Your task to perform on an android device: set default search engine in the chrome app Image 0: 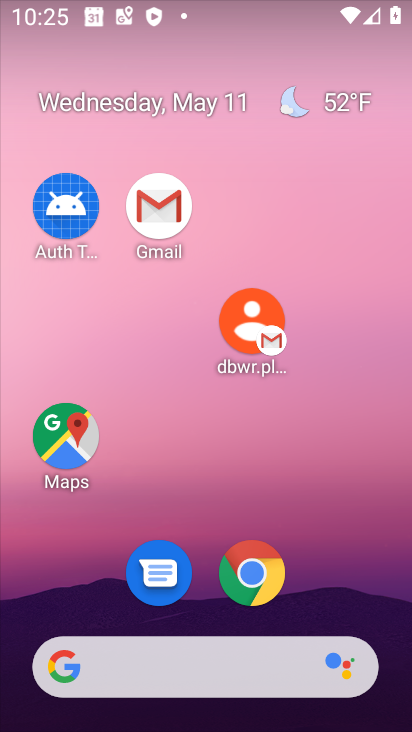
Step 0: drag from (345, 567) to (209, 39)
Your task to perform on an android device: set default search engine in the chrome app Image 1: 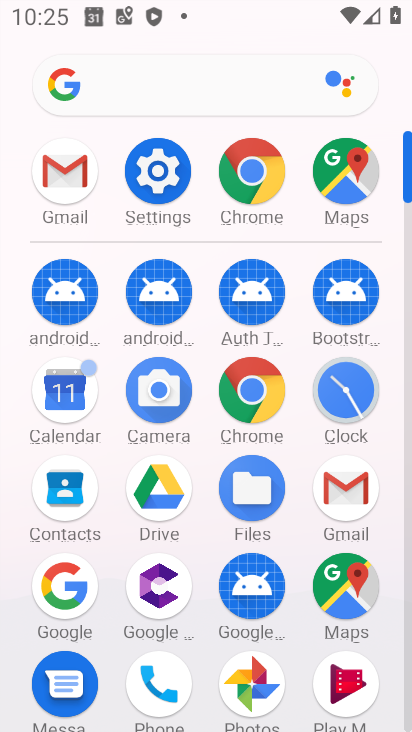
Step 1: click (244, 164)
Your task to perform on an android device: set default search engine in the chrome app Image 2: 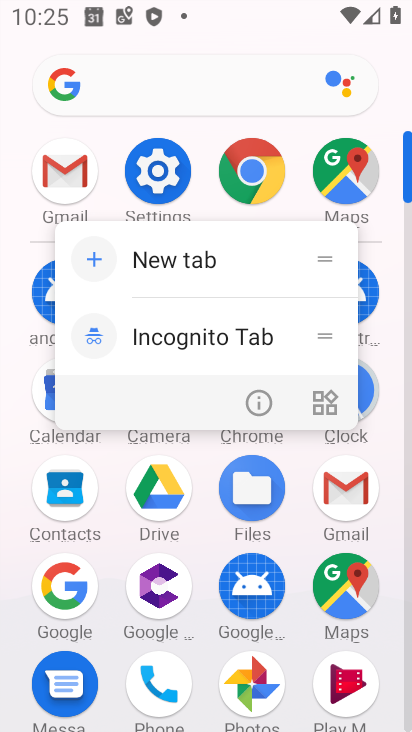
Step 2: click (248, 166)
Your task to perform on an android device: set default search engine in the chrome app Image 3: 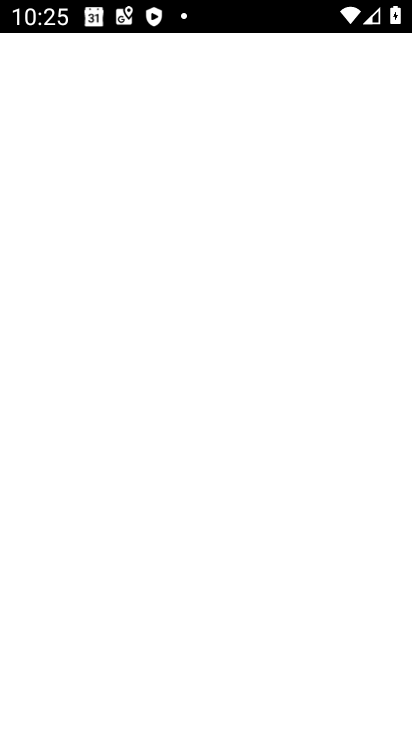
Step 3: click (247, 167)
Your task to perform on an android device: set default search engine in the chrome app Image 4: 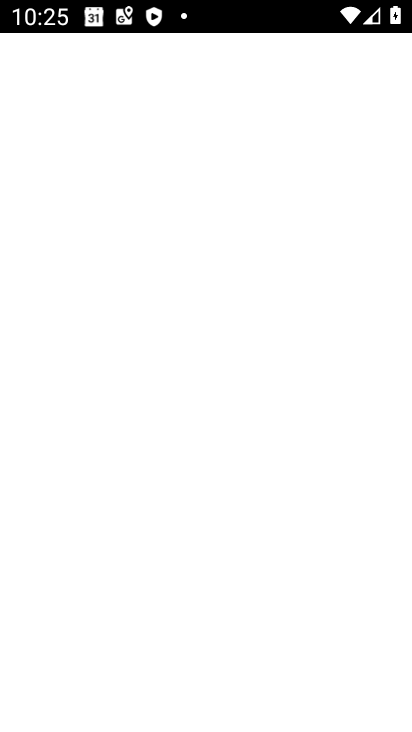
Step 4: click (247, 167)
Your task to perform on an android device: set default search engine in the chrome app Image 5: 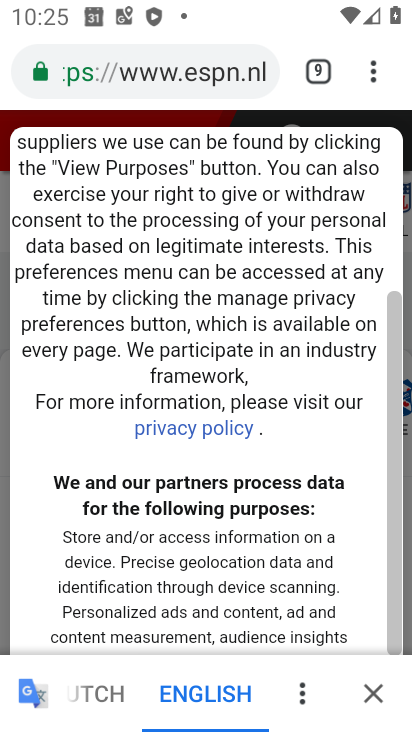
Step 5: drag from (365, 74) to (131, 566)
Your task to perform on an android device: set default search engine in the chrome app Image 6: 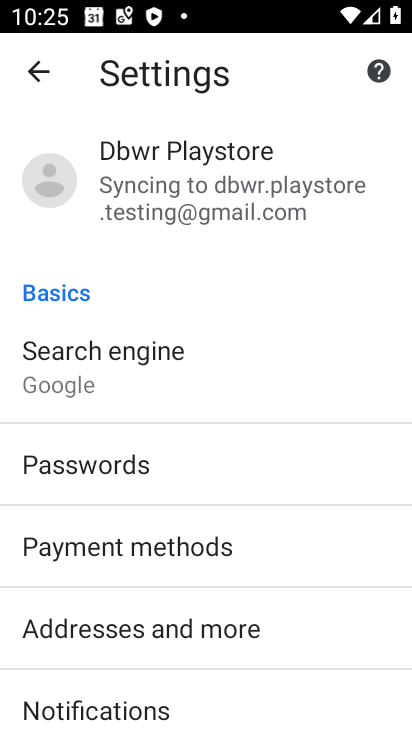
Step 6: drag from (186, 484) to (171, 105)
Your task to perform on an android device: set default search engine in the chrome app Image 7: 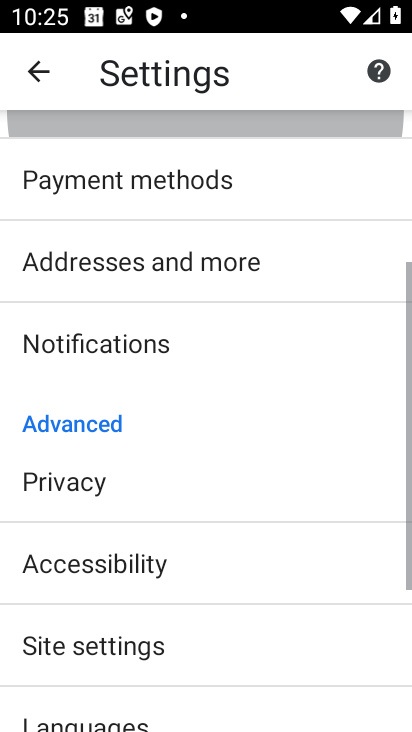
Step 7: drag from (166, 316) to (124, 92)
Your task to perform on an android device: set default search engine in the chrome app Image 8: 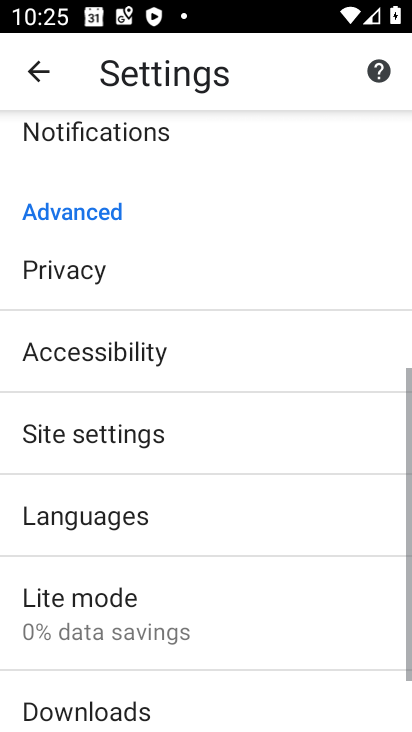
Step 8: drag from (154, 404) to (153, 61)
Your task to perform on an android device: set default search engine in the chrome app Image 9: 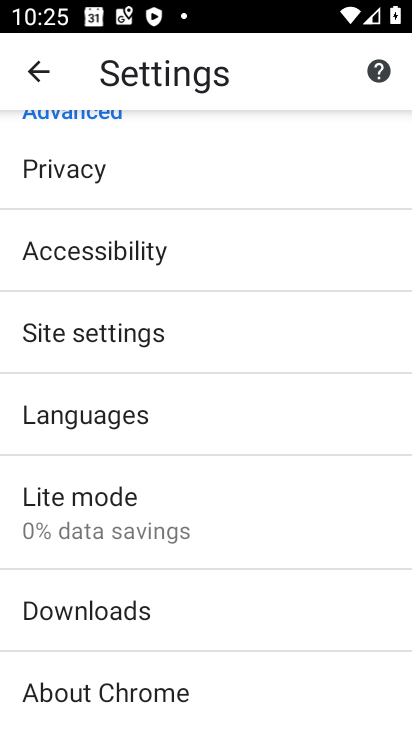
Step 9: click (75, 337)
Your task to perform on an android device: set default search engine in the chrome app Image 10: 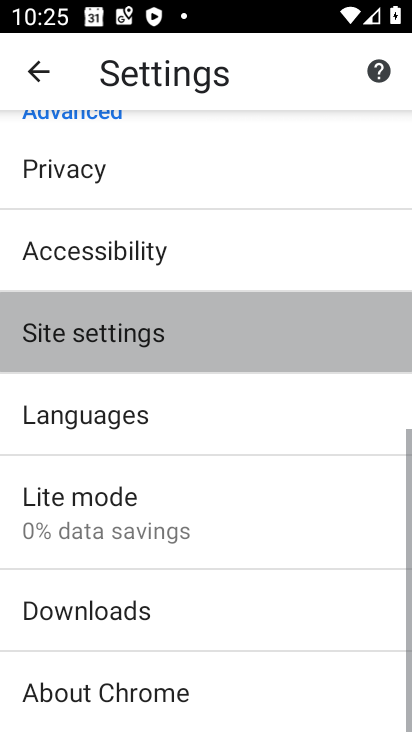
Step 10: click (71, 322)
Your task to perform on an android device: set default search engine in the chrome app Image 11: 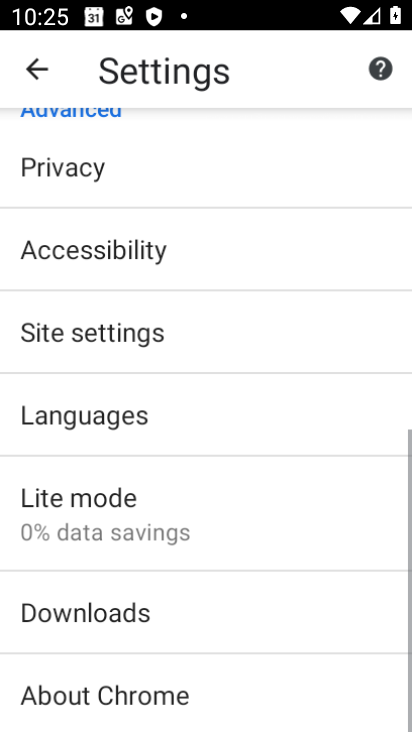
Step 11: click (69, 320)
Your task to perform on an android device: set default search engine in the chrome app Image 12: 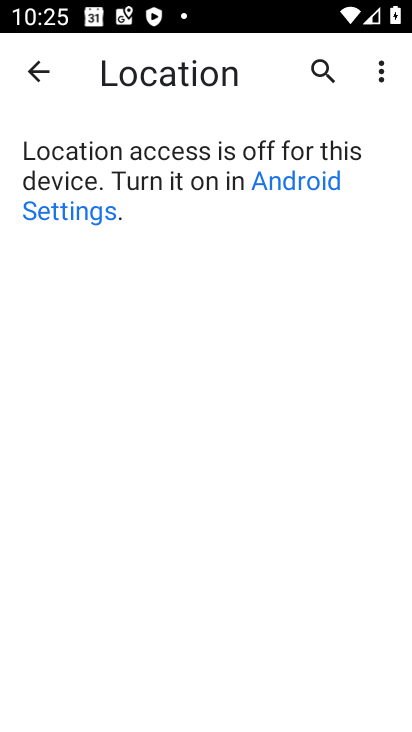
Step 12: click (38, 68)
Your task to perform on an android device: set default search engine in the chrome app Image 13: 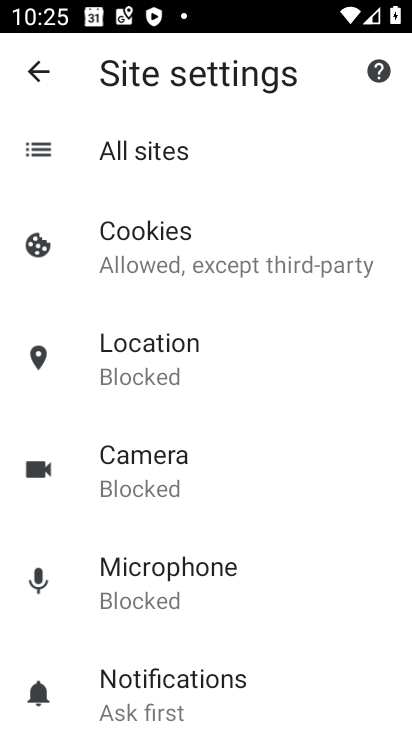
Step 13: click (23, 65)
Your task to perform on an android device: set default search engine in the chrome app Image 14: 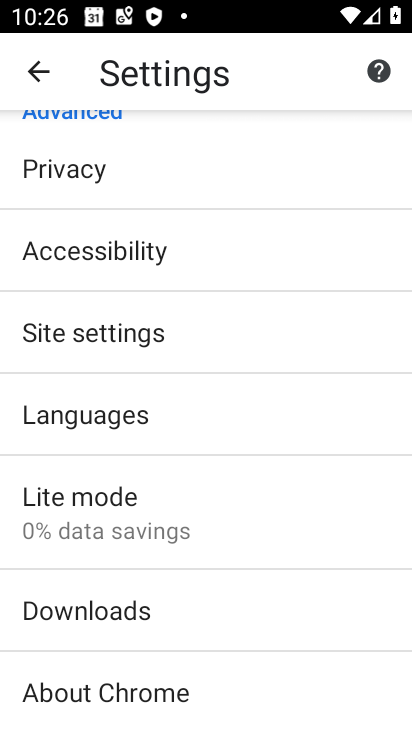
Step 14: drag from (91, 235) to (157, 519)
Your task to perform on an android device: set default search engine in the chrome app Image 15: 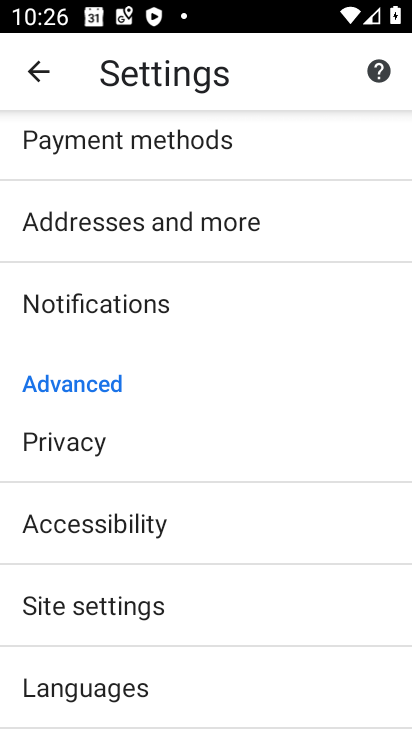
Step 15: drag from (102, 235) to (151, 590)
Your task to perform on an android device: set default search engine in the chrome app Image 16: 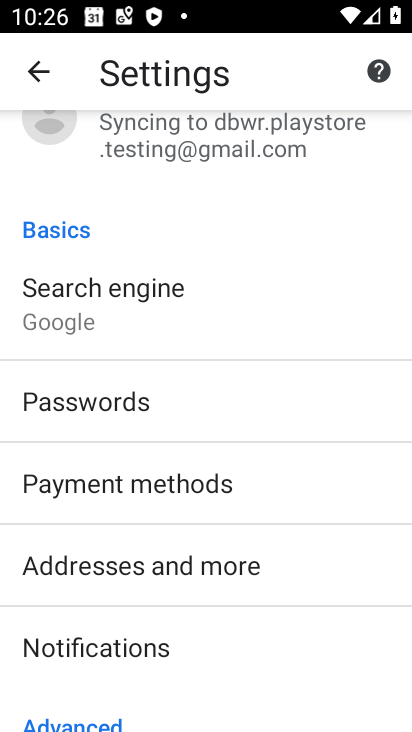
Step 16: click (85, 294)
Your task to perform on an android device: set default search engine in the chrome app Image 17: 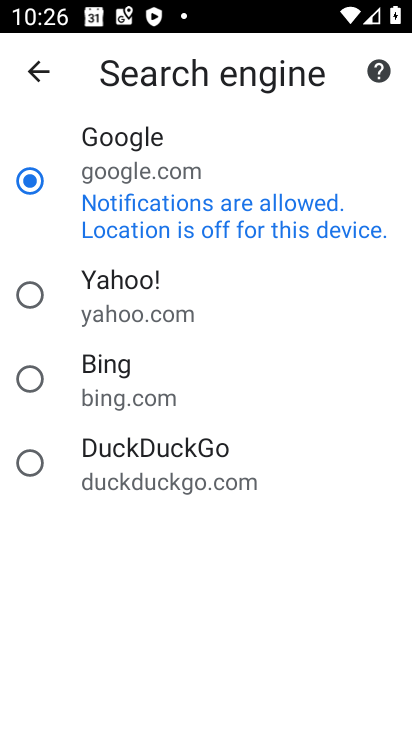
Step 17: click (17, 292)
Your task to perform on an android device: set default search engine in the chrome app Image 18: 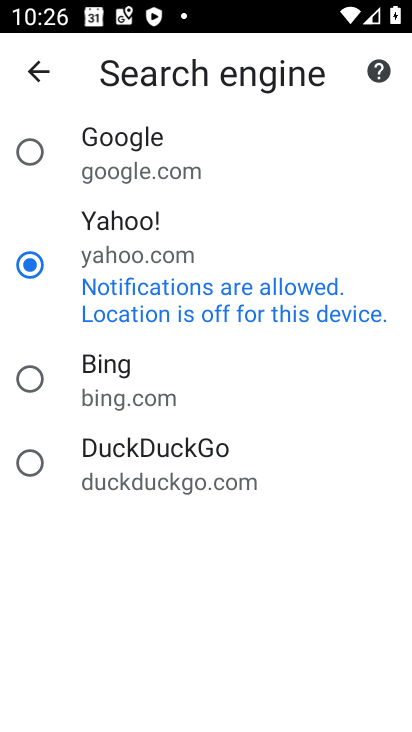
Step 18: click (26, 143)
Your task to perform on an android device: set default search engine in the chrome app Image 19: 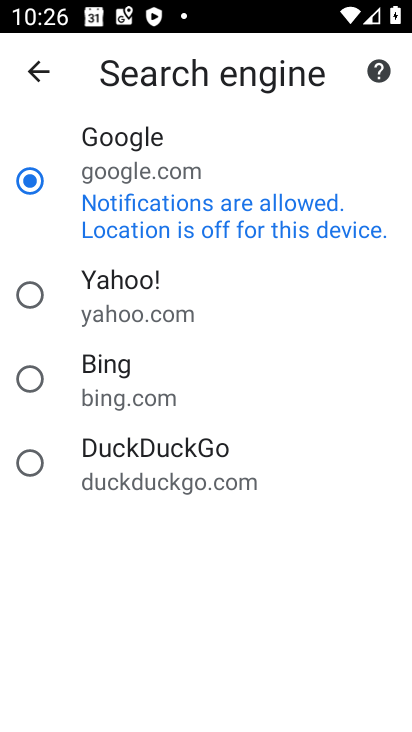
Step 19: task complete